Your task to perform on an android device: Go to Google maps Image 0: 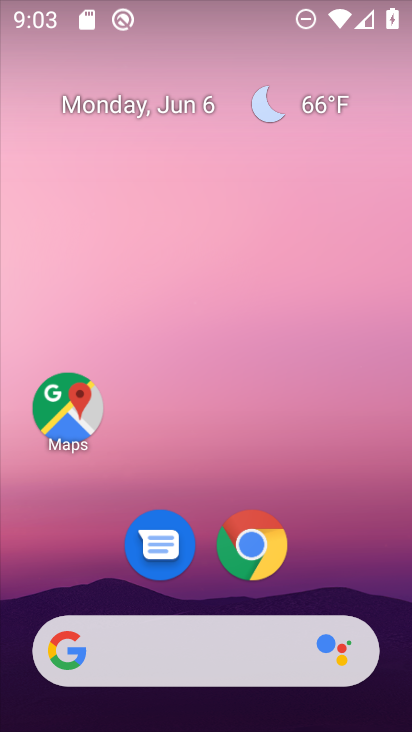
Step 0: click (85, 421)
Your task to perform on an android device: Go to Google maps Image 1: 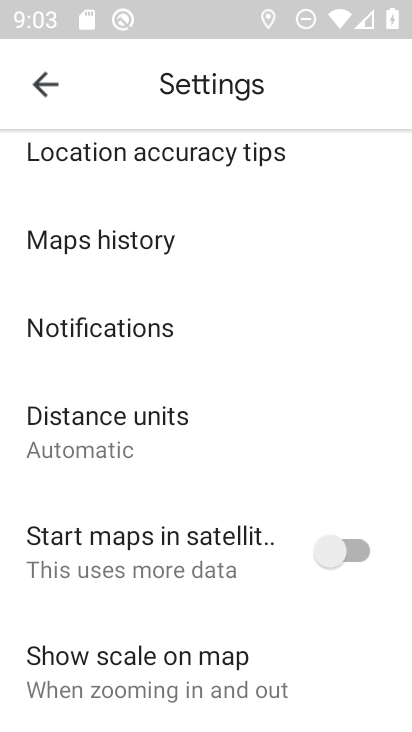
Step 1: click (43, 71)
Your task to perform on an android device: Go to Google maps Image 2: 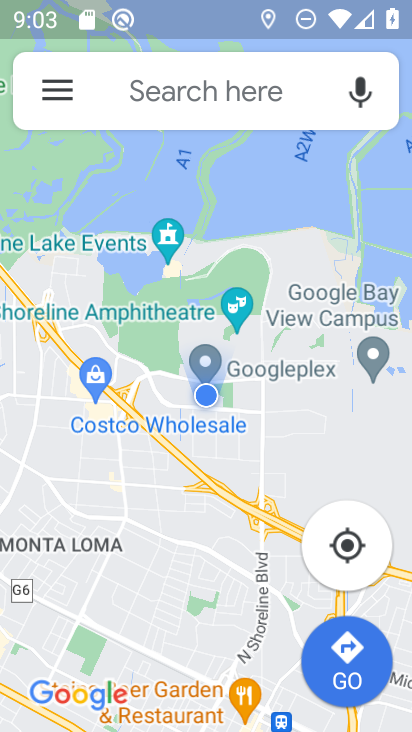
Step 2: task complete